Your task to perform on an android device: toggle improve location accuracy Image 0: 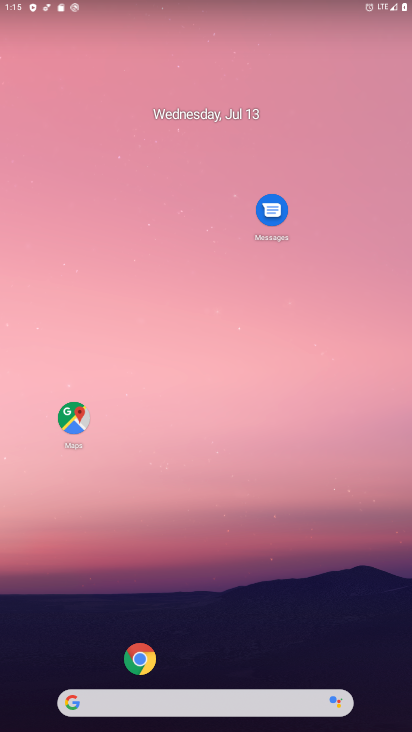
Step 0: click (260, 176)
Your task to perform on an android device: toggle improve location accuracy Image 1: 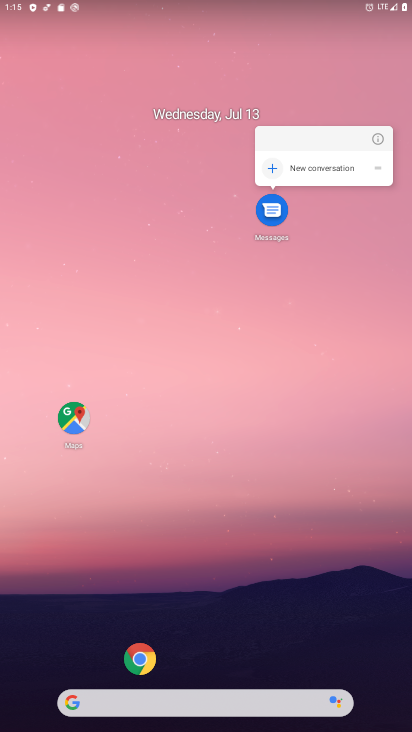
Step 1: drag from (104, 514) to (225, 35)
Your task to perform on an android device: toggle improve location accuracy Image 2: 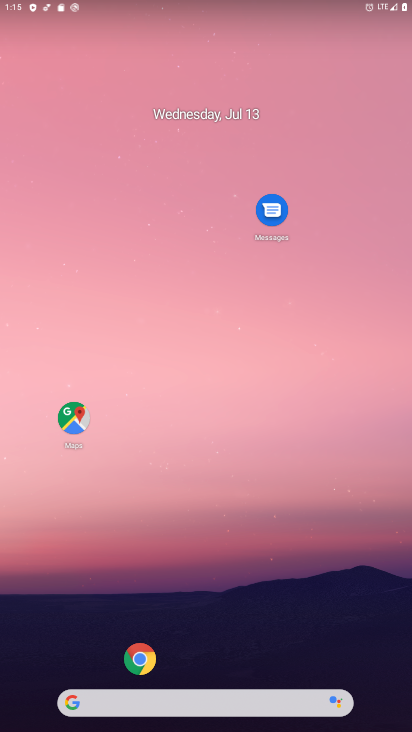
Step 2: drag from (8, 682) to (189, 2)
Your task to perform on an android device: toggle improve location accuracy Image 3: 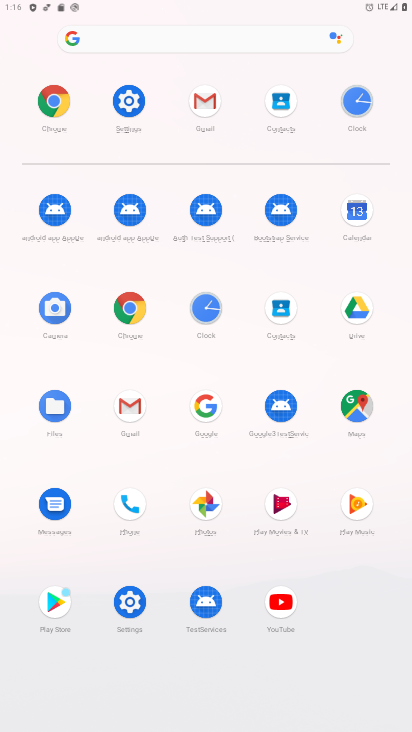
Step 3: click (131, 597)
Your task to perform on an android device: toggle improve location accuracy Image 4: 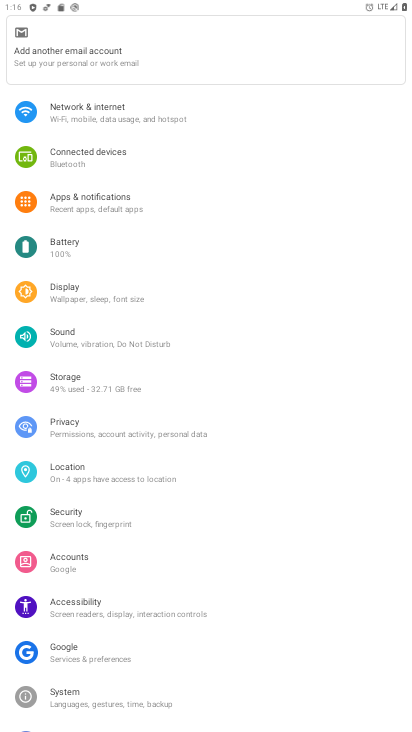
Step 4: click (98, 473)
Your task to perform on an android device: toggle improve location accuracy Image 5: 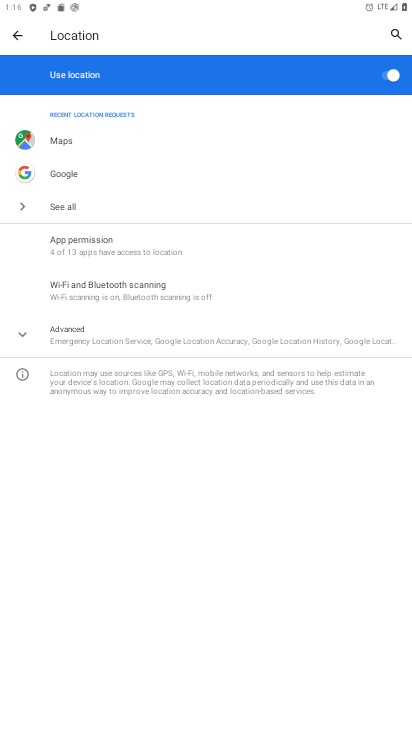
Step 5: click (87, 333)
Your task to perform on an android device: toggle improve location accuracy Image 6: 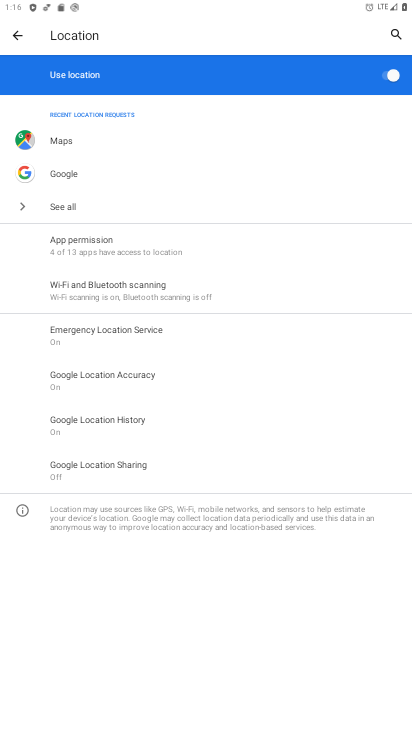
Step 6: click (122, 382)
Your task to perform on an android device: toggle improve location accuracy Image 7: 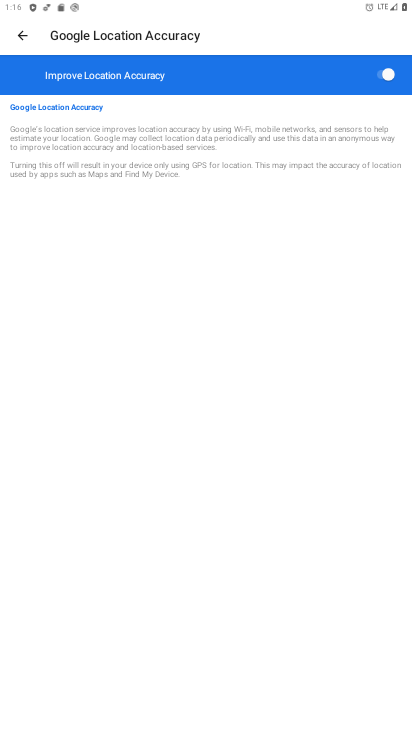
Step 7: task complete